Your task to perform on an android device: Check the news Image 0: 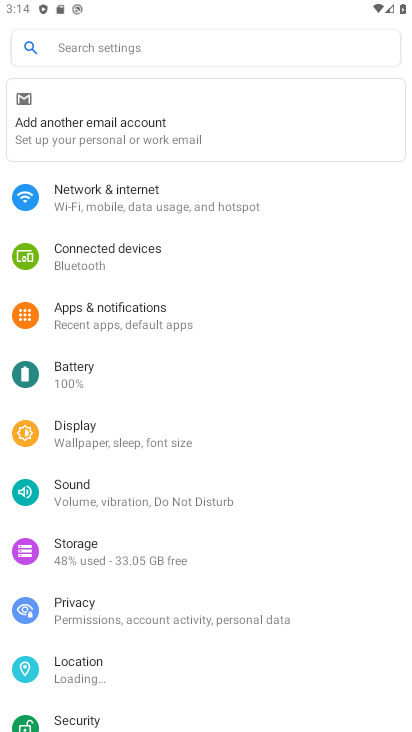
Step 0: press home button
Your task to perform on an android device: Check the news Image 1: 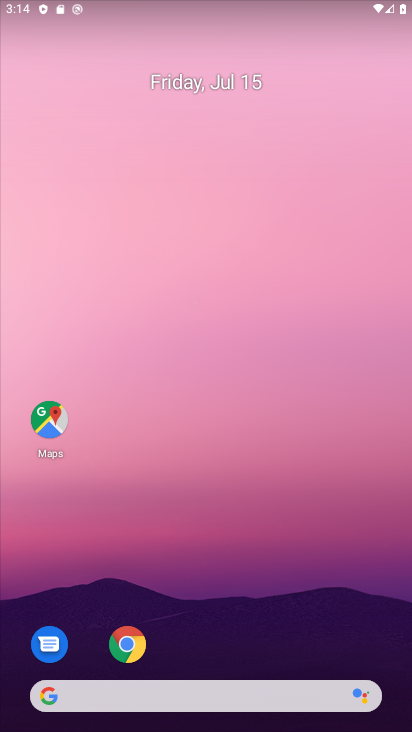
Step 1: drag from (287, 641) to (166, 137)
Your task to perform on an android device: Check the news Image 2: 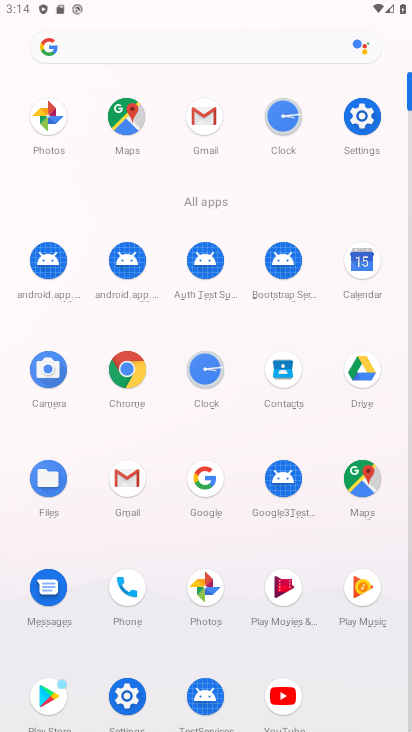
Step 2: click (129, 372)
Your task to perform on an android device: Check the news Image 3: 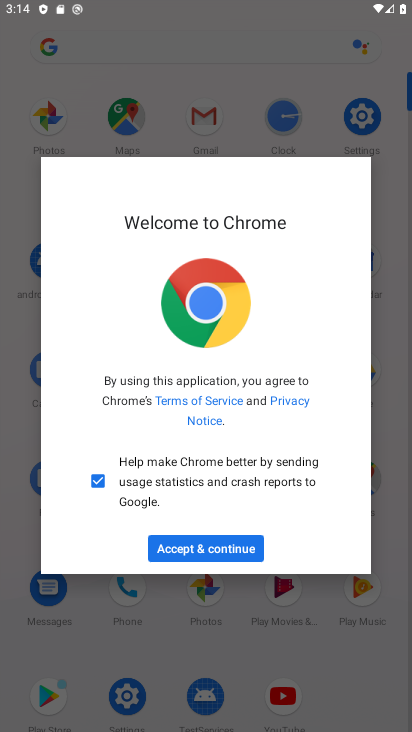
Step 3: click (213, 548)
Your task to perform on an android device: Check the news Image 4: 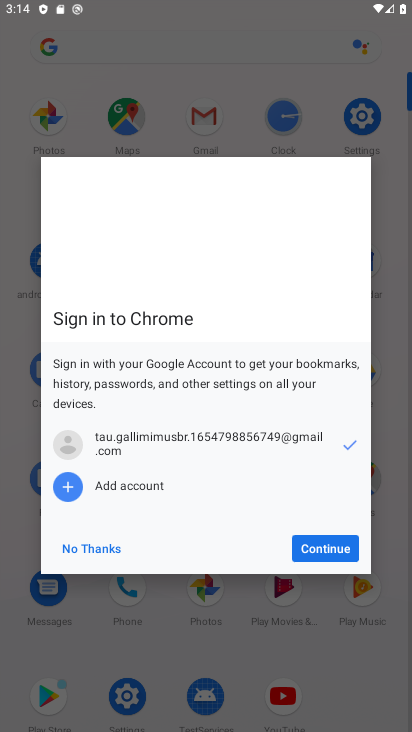
Step 4: click (314, 540)
Your task to perform on an android device: Check the news Image 5: 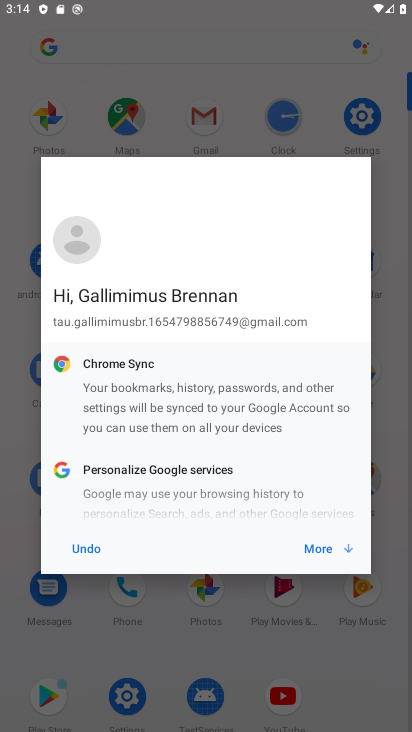
Step 5: click (312, 540)
Your task to perform on an android device: Check the news Image 6: 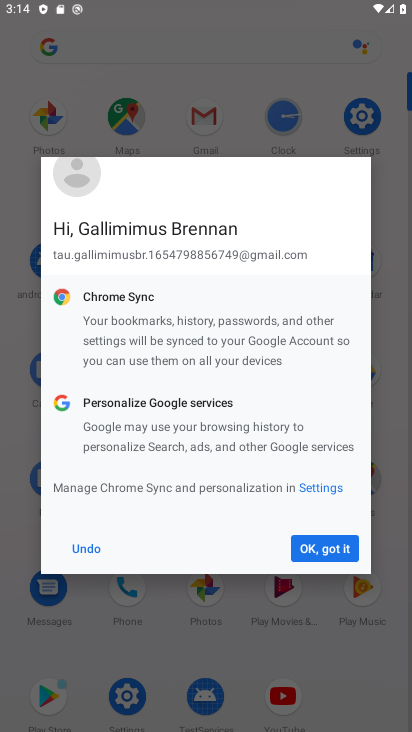
Step 6: click (312, 540)
Your task to perform on an android device: Check the news Image 7: 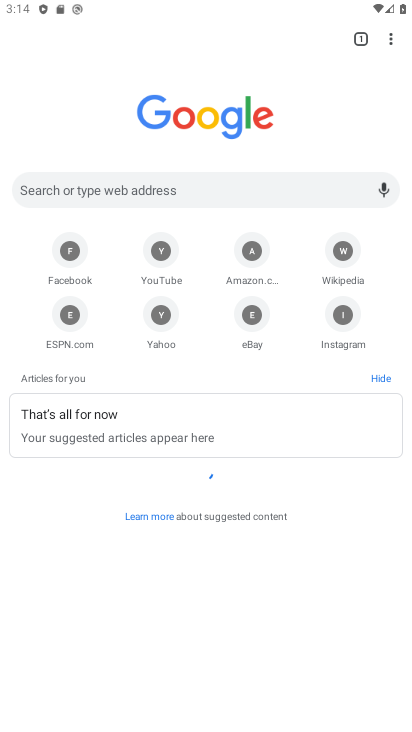
Step 7: click (190, 197)
Your task to perform on an android device: Check the news Image 8: 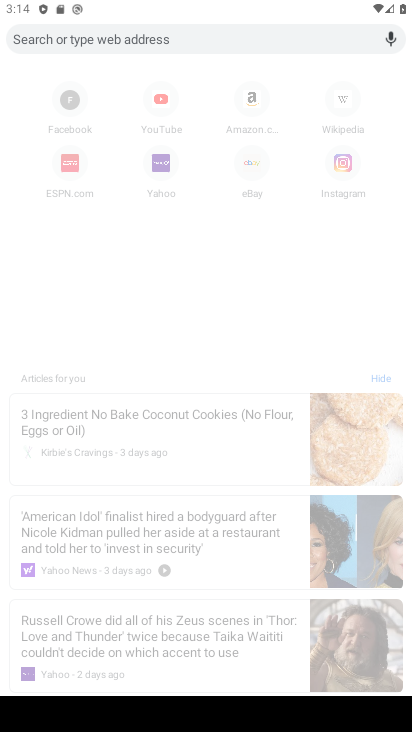
Step 8: click (150, 35)
Your task to perform on an android device: Check the news Image 9: 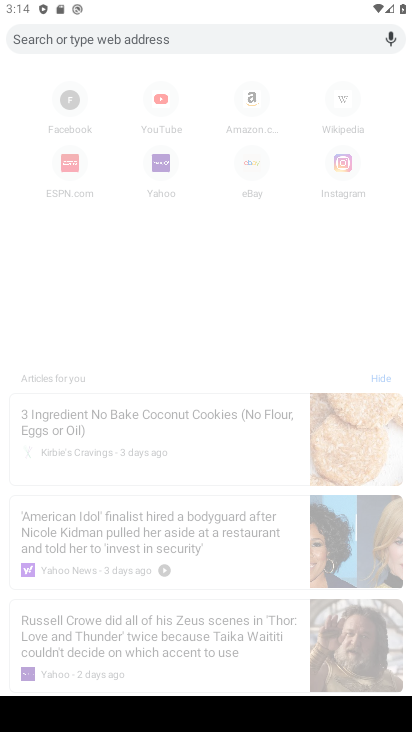
Step 9: type "Check the news"
Your task to perform on an android device: Check the news Image 10: 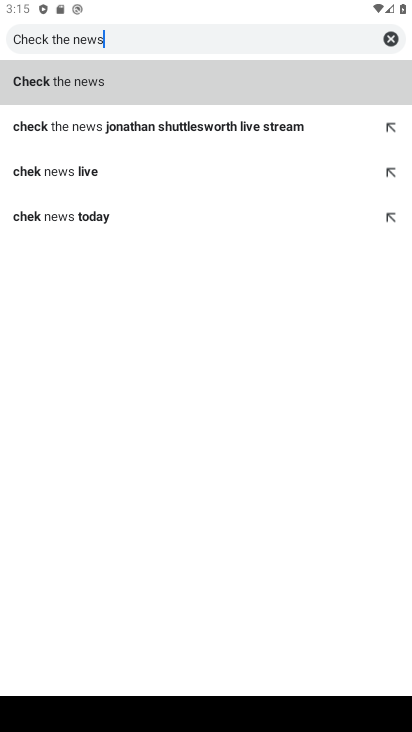
Step 10: click (86, 80)
Your task to perform on an android device: Check the news Image 11: 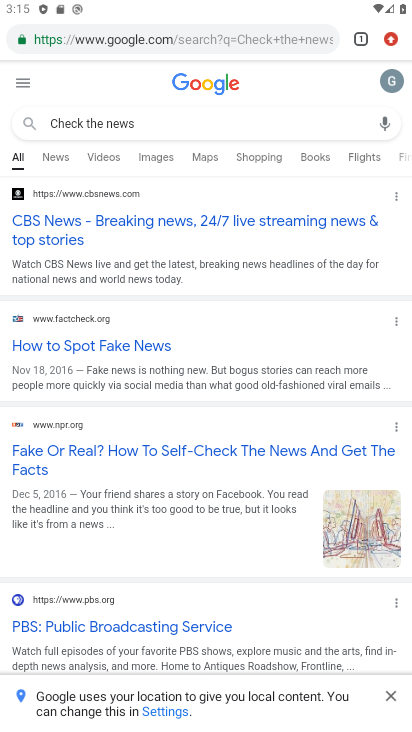
Step 11: task complete